Your task to perform on an android device: Open the map Image 0: 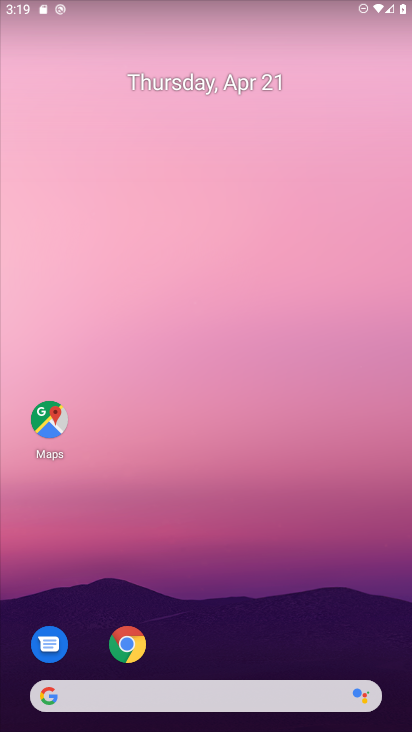
Step 0: click (59, 423)
Your task to perform on an android device: Open the map Image 1: 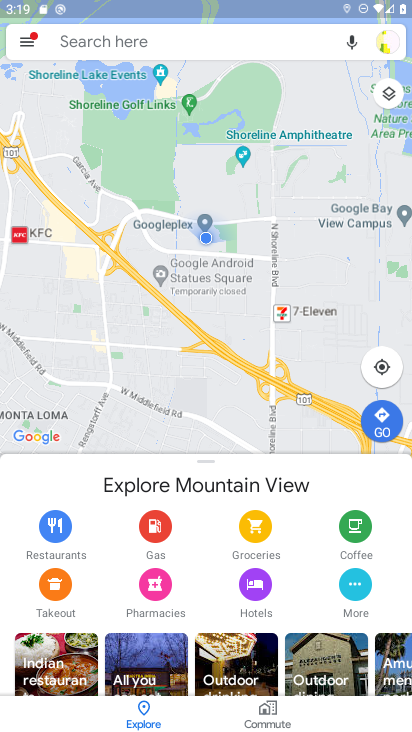
Step 1: task complete